Your task to perform on an android device: Turn on the flashlight Image 0: 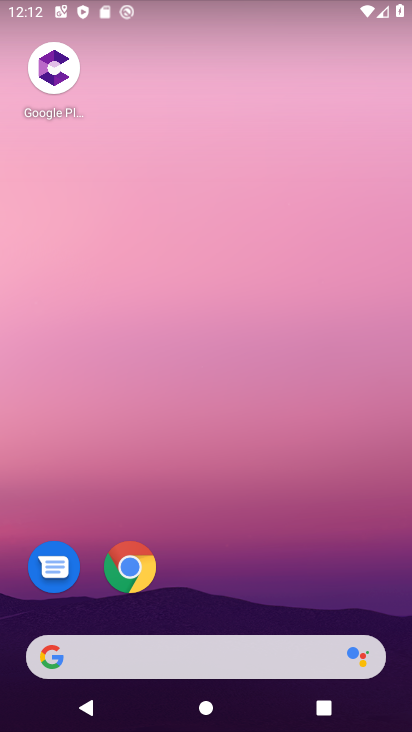
Step 0: drag from (320, 559) to (3, 514)
Your task to perform on an android device: Turn on the flashlight Image 1: 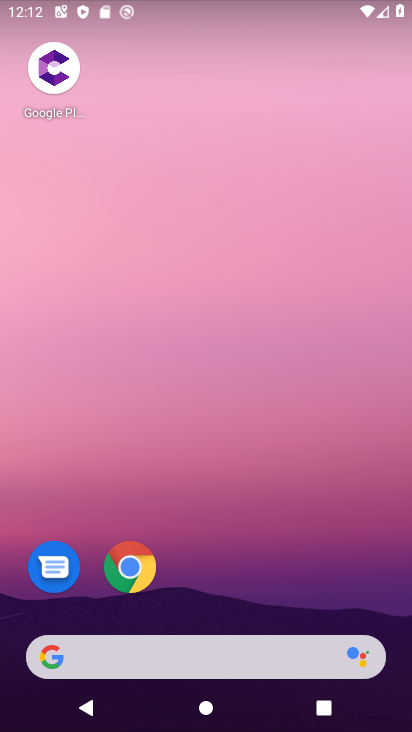
Step 1: drag from (293, 573) to (252, 72)
Your task to perform on an android device: Turn on the flashlight Image 2: 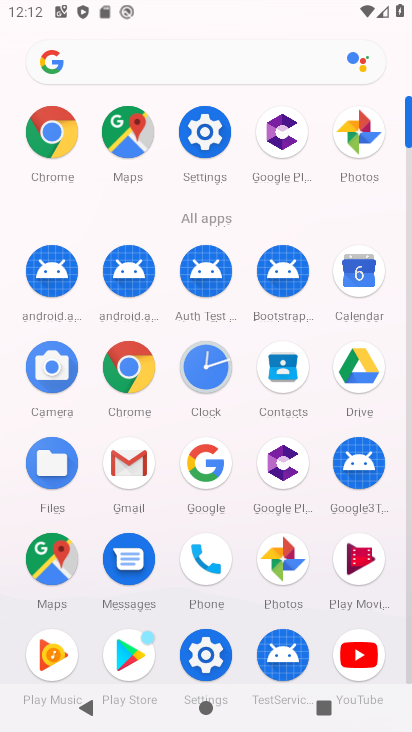
Step 2: click (198, 132)
Your task to perform on an android device: Turn on the flashlight Image 3: 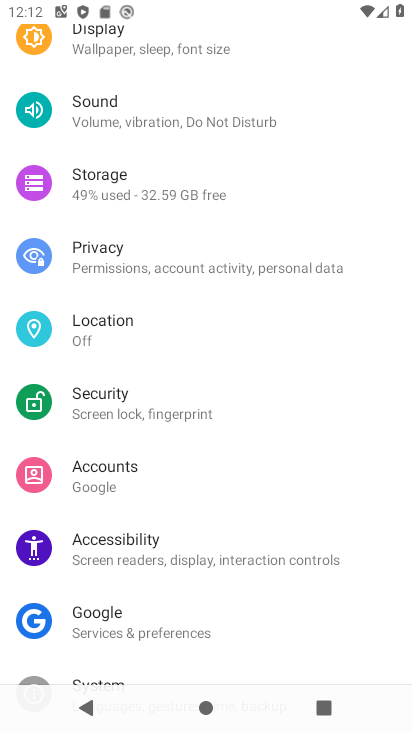
Step 3: task complete